Your task to perform on an android device: toggle wifi Image 0: 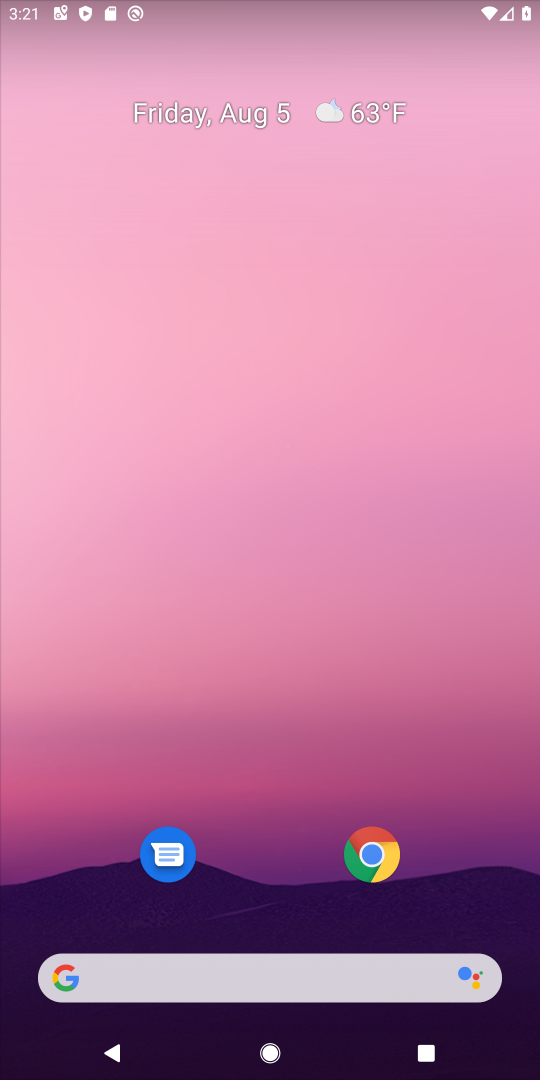
Step 0: drag from (47, 1025) to (492, 43)
Your task to perform on an android device: toggle wifi Image 1: 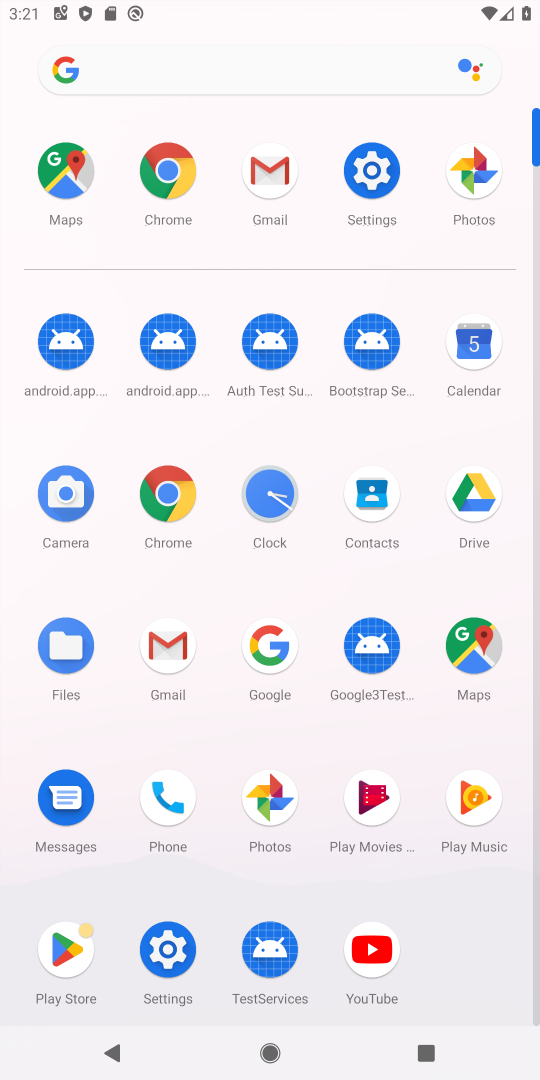
Step 1: click (167, 949)
Your task to perform on an android device: toggle wifi Image 2: 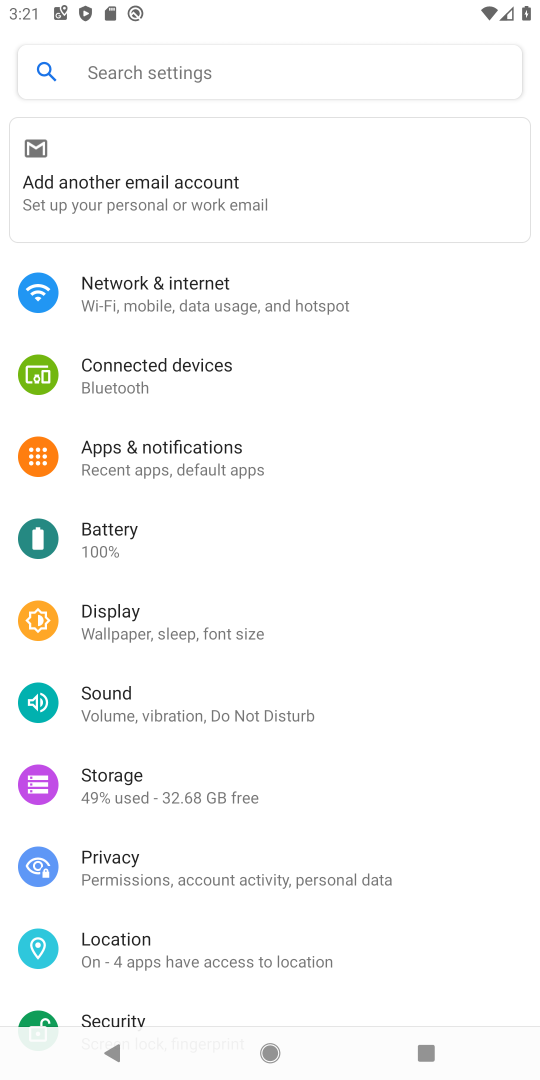
Step 2: click (159, 281)
Your task to perform on an android device: toggle wifi Image 3: 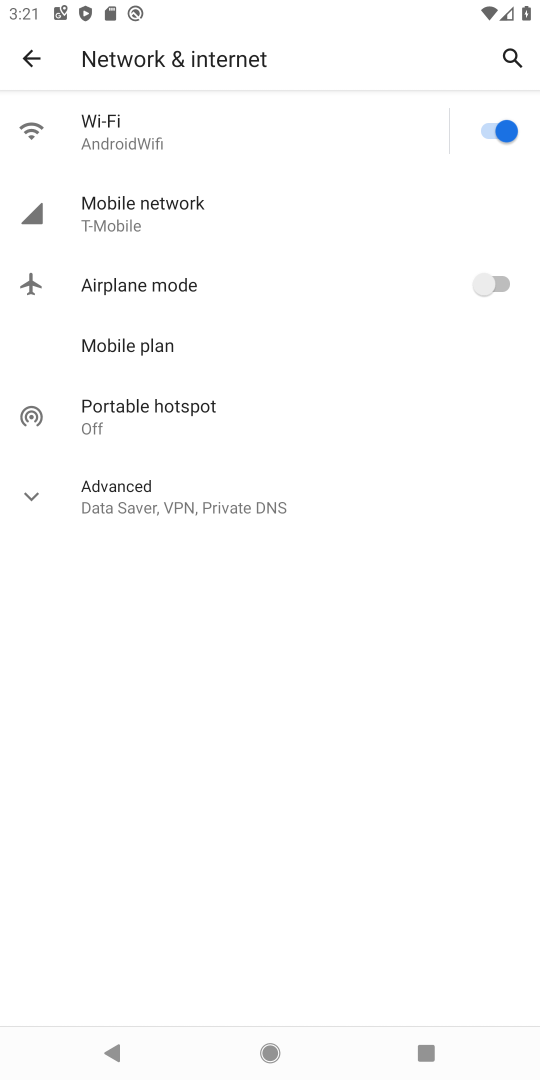
Step 3: task complete